Your task to perform on an android device: check google app version Image 0: 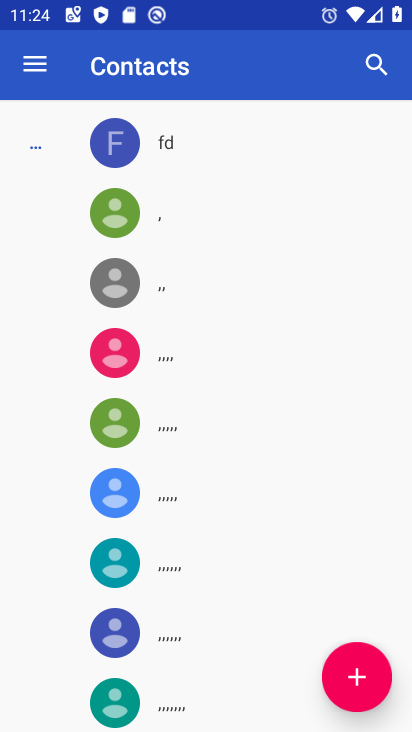
Step 0: press home button
Your task to perform on an android device: check google app version Image 1: 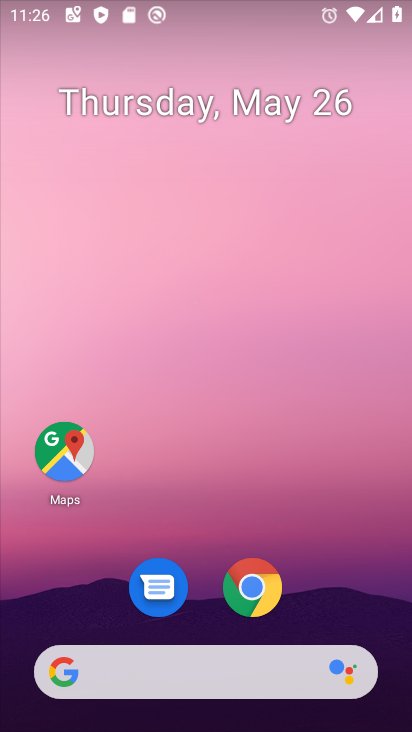
Step 1: drag from (159, 691) to (268, 89)
Your task to perform on an android device: check google app version Image 2: 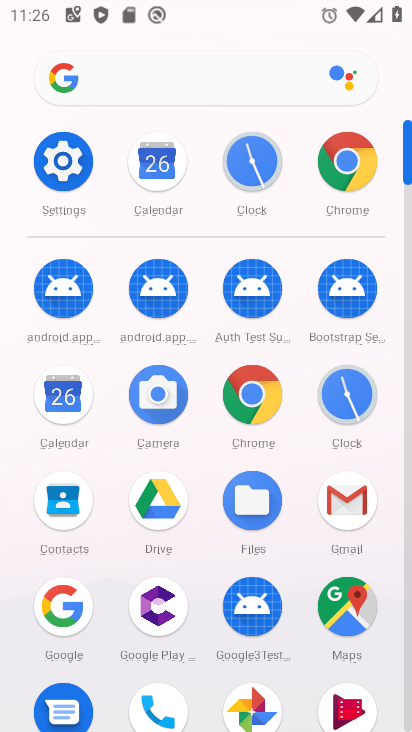
Step 2: click (348, 149)
Your task to perform on an android device: check google app version Image 3: 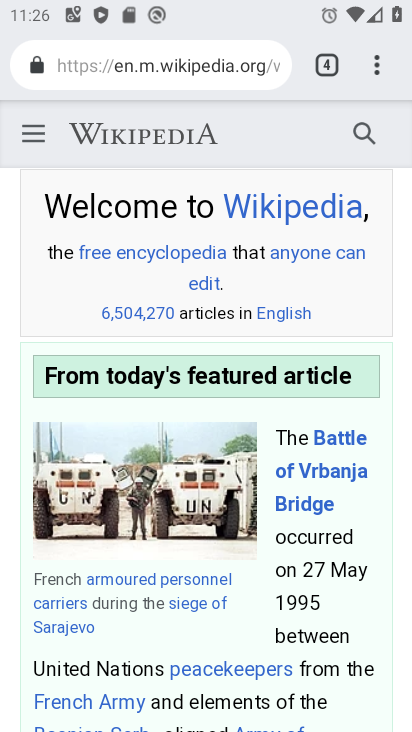
Step 3: click (376, 86)
Your task to perform on an android device: check google app version Image 4: 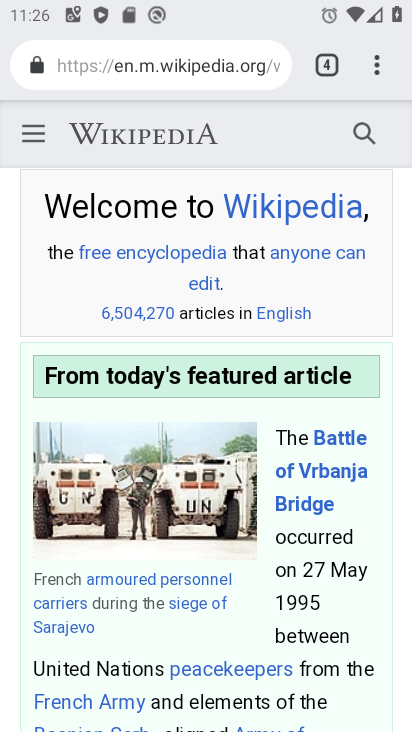
Step 4: click (378, 58)
Your task to perform on an android device: check google app version Image 5: 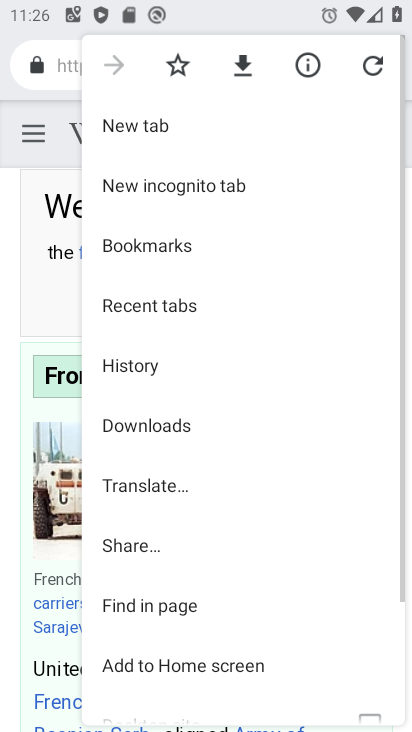
Step 5: drag from (183, 601) to (403, 137)
Your task to perform on an android device: check google app version Image 6: 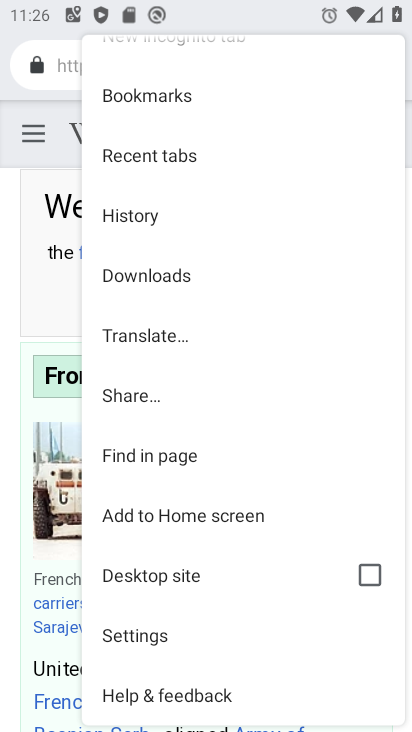
Step 6: click (173, 639)
Your task to perform on an android device: check google app version Image 7: 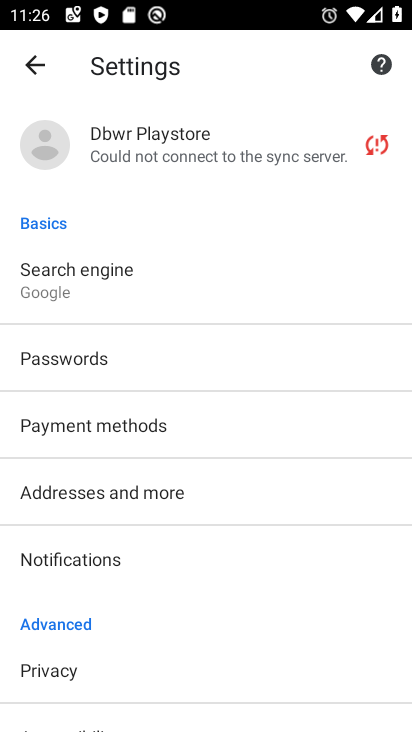
Step 7: drag from (307, 578) to (370, 172)
Your task to perform on an android device: check google app version Image 8: 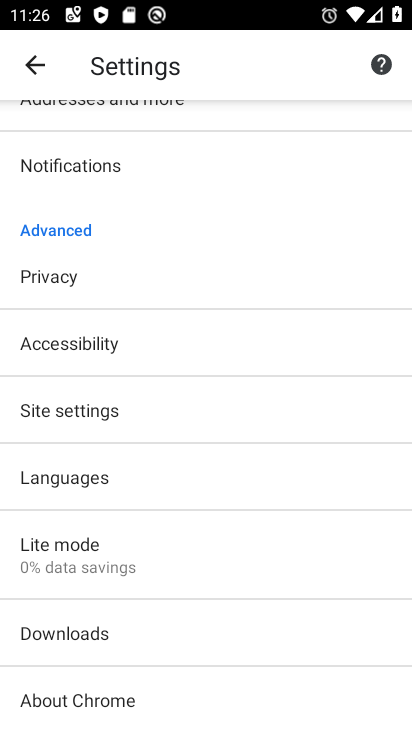
Step 8: click (70, 695)
Your task to perform on an android device: check google app version Image 9: 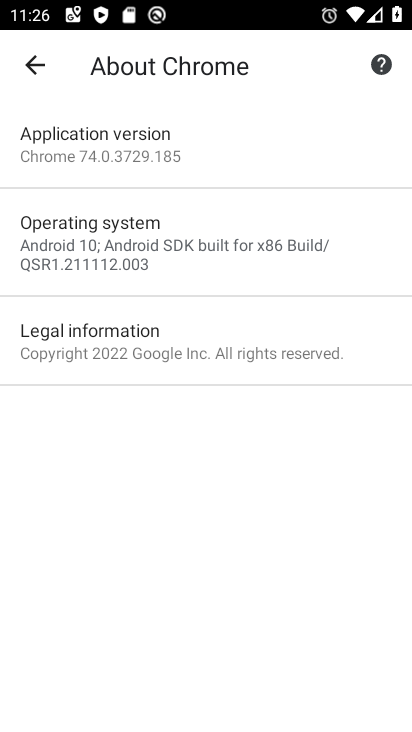
Step 9: click (178, 171)
Your task to perform on an android device: check google app version Image 10: 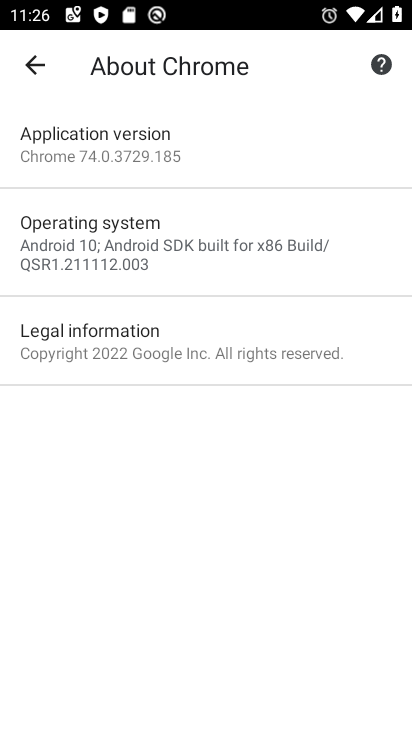
Step 10: task complete